Your task to perform on an android device: clear history in the chrome app Image 0: 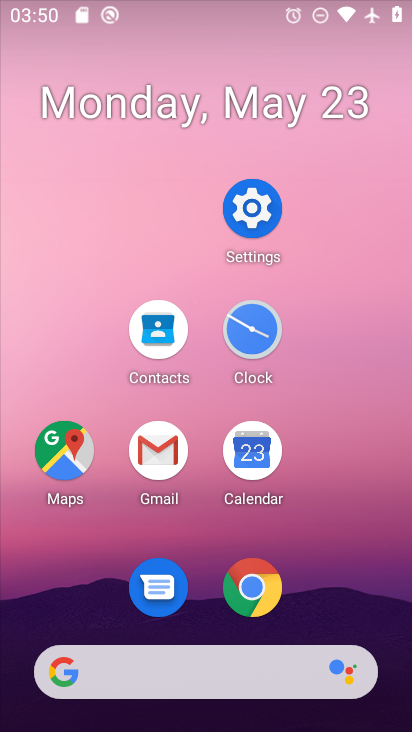
Step 0: click (270, 599)
Your task to perform on an android device: clear history in the chrome app Image 1: 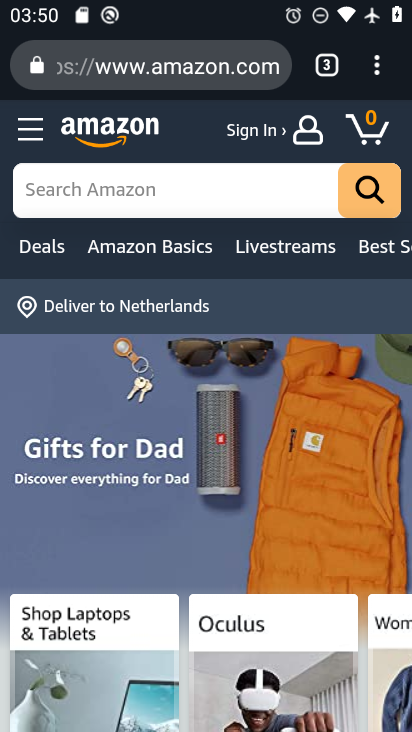
Step 1: click (386, 82)
Your task to perform on an android device: clear history in the chrome app Image 2: 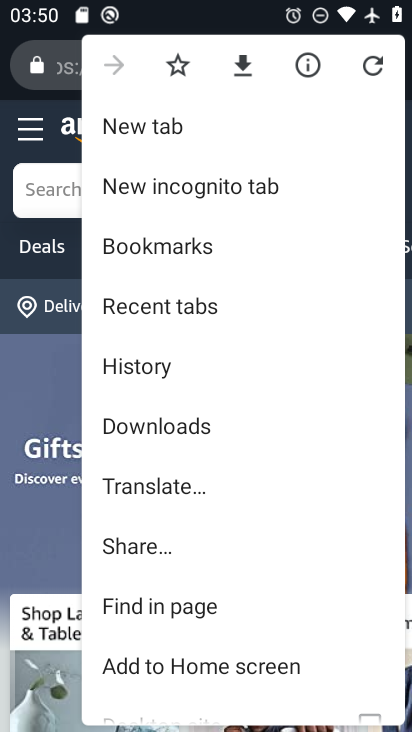
Step 2: click (197, 361)
Your task to perform on an android device: clear history in the chrome app Image 3: 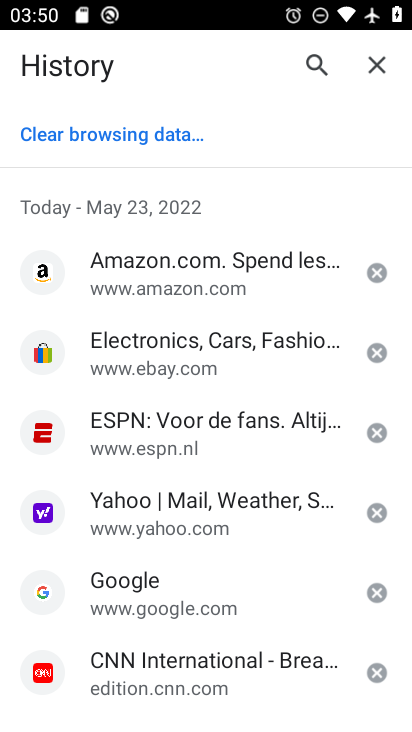
Step 3: click (159, 143)
Your task to perform on an android device: clear history in the chrome app Image 4: 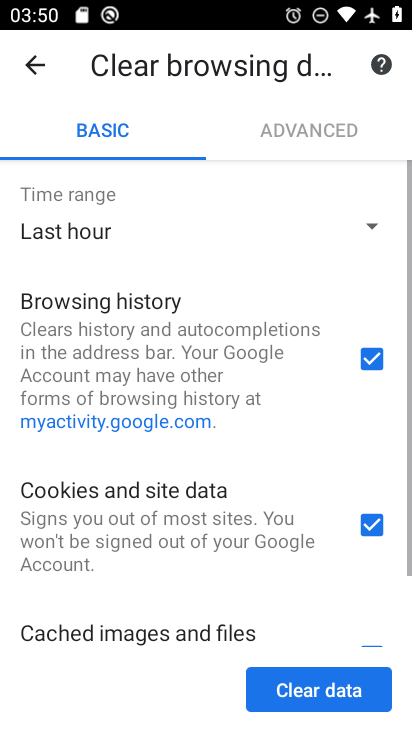
Step 4: click (290, 701)
Your task to perform on an android device: clear history in the chrome app Image 5: 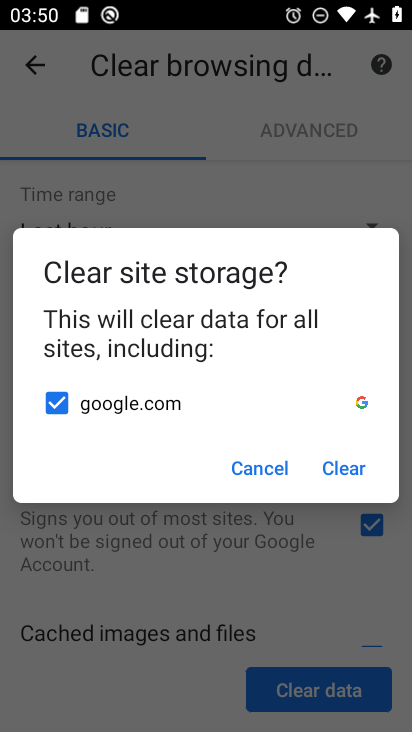
Step 5: click (330, 472)
Your task to perform on an android device: clear history in the chrome app Image 6: 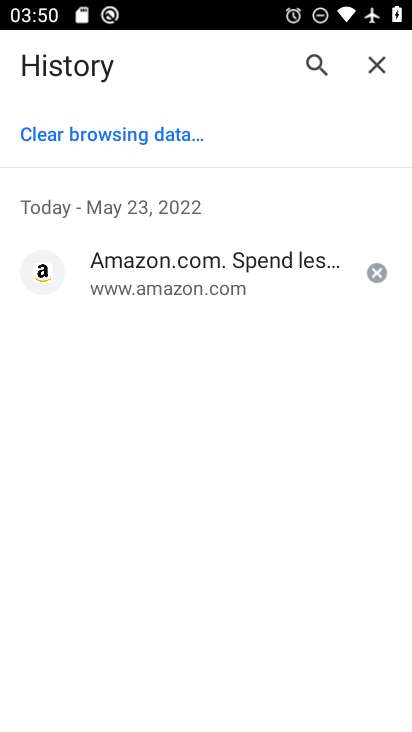
Step 6: task complete